Your task to perform on an android device: turn off location Image 0: 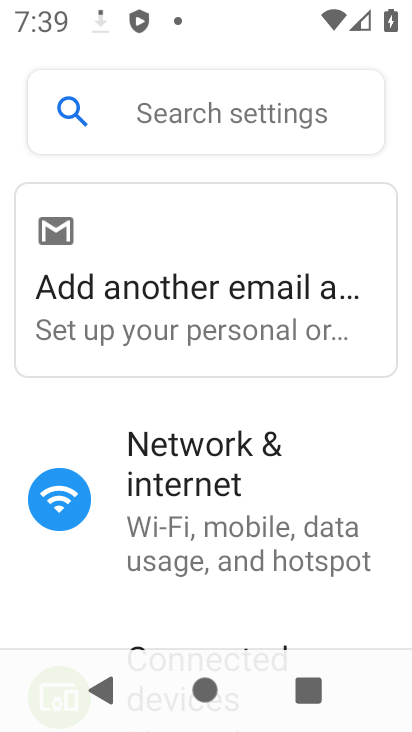
Step 0: press home button
Your task to perform on an android device: turn off location Image 1: 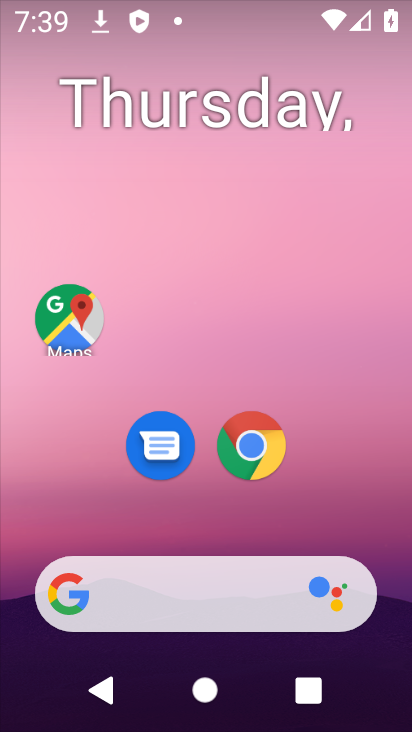
Step 1: drag from (376, 508) to (306, 87)
Your task to perform on an android device: turn off location Image 2: 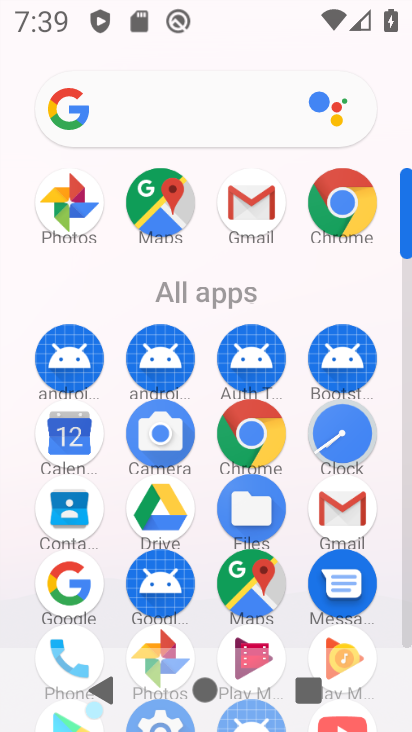
Step 2: drag from (200, 582) to (195, 259)
Your task to perform on an android device: turn off location Image 3: 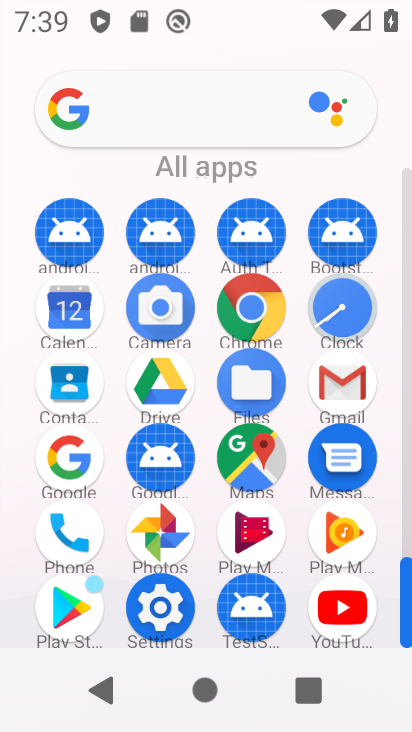
Step 3: click (148, 616)
Your task to perform on an android device: turn off location Image 4: 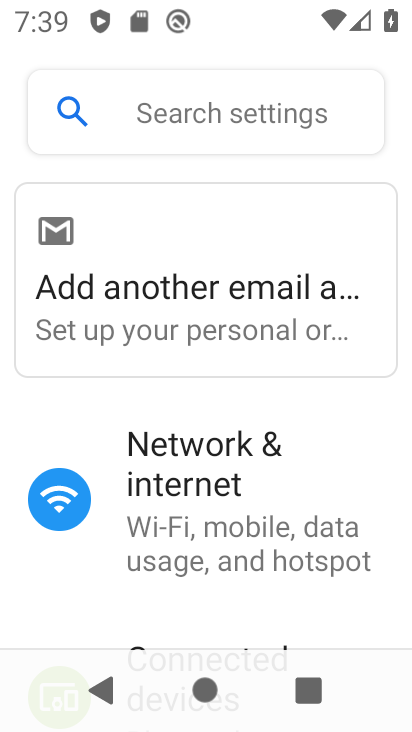
Step 4: drag from (320, 599) to (309, 181)
Your task to perform on an android device: turn off location Image 5: 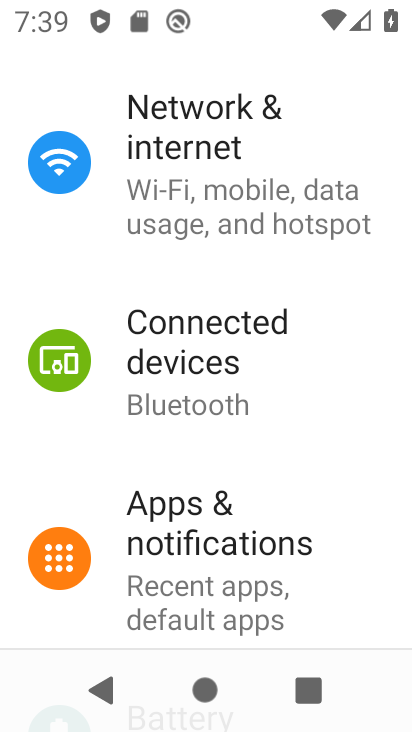
Step 5: drag from (258, 637) to (295, 151)
Your task to perform on an android device: turn off location Image 6: 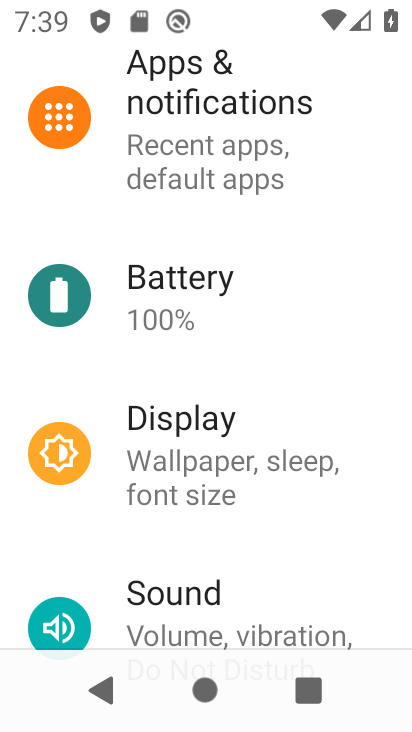
Step 6: drag from (320, 588) to (334, 151)
Your task to perform on an android device: turn off location Image 7: 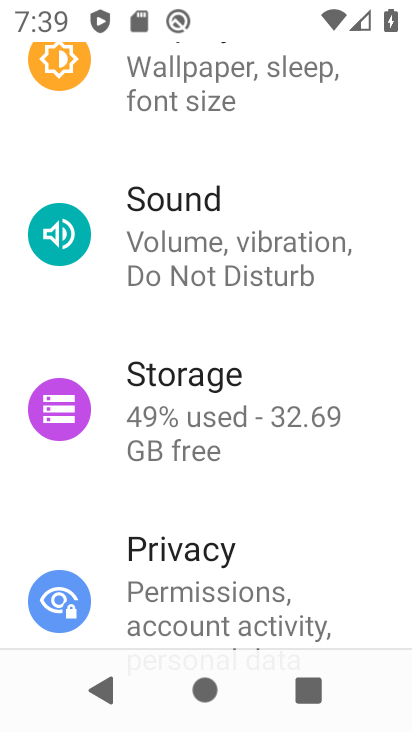
Step 7: drag from (311, 530) to (311, 103)
Your task to perform on an android device: turn off location Image 8: 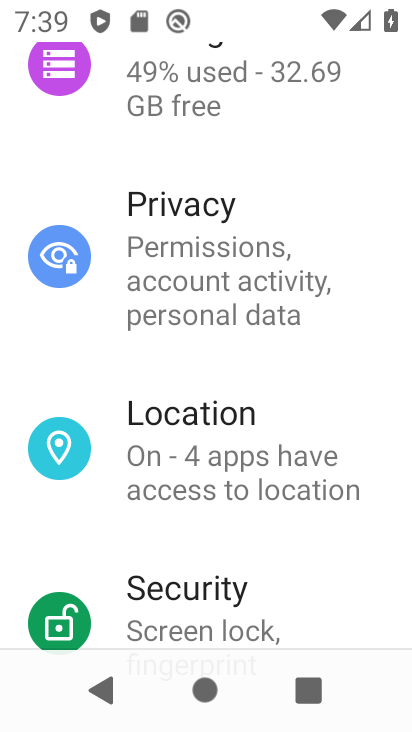
Step 8: click (252, 465)
Your task to perform on an android device: turn off location Image 9: 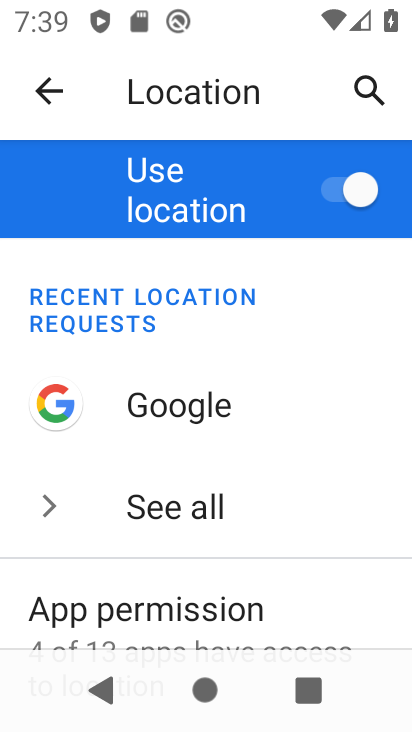
Step 9: click (329, 194)
Your task to perform on an android device: turn off location Image 10: 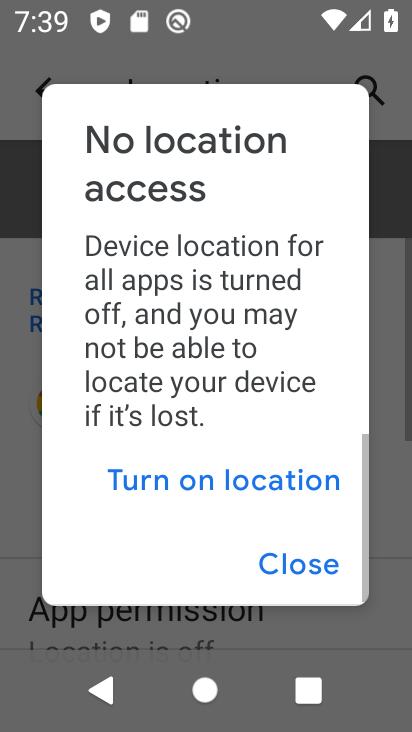
Step 10: task complete